Your task to perform on an android device: refresh tabs in the chrome app Image 0: 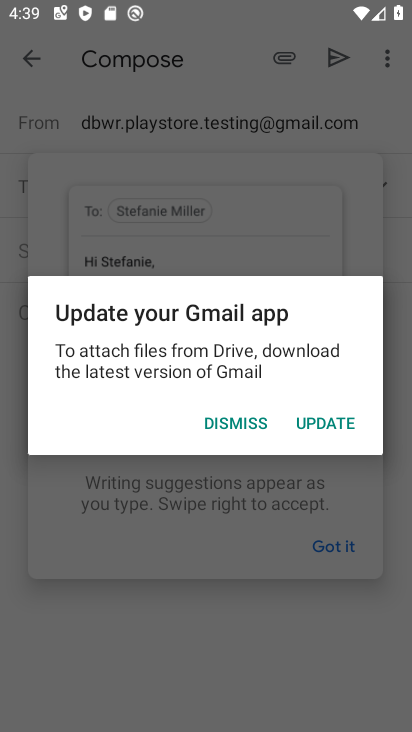
Step 0: press home button
Your task to perform on an android device: refresh tabs in the chrome app Image 1: 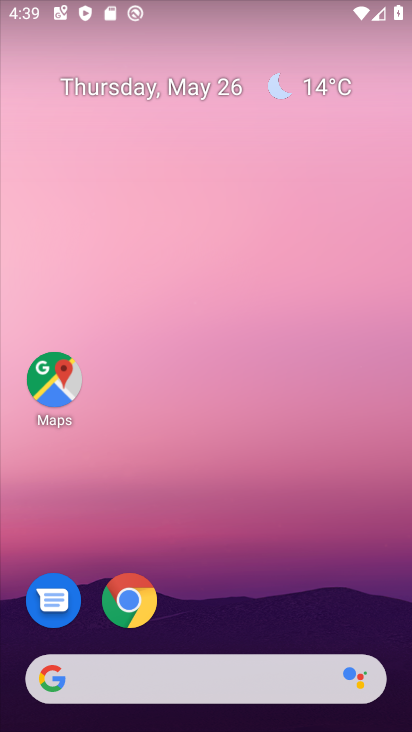
Step 1: click (127, 599)
Your task to perform on an android device: refresh tabs in the chrome app Image 2: 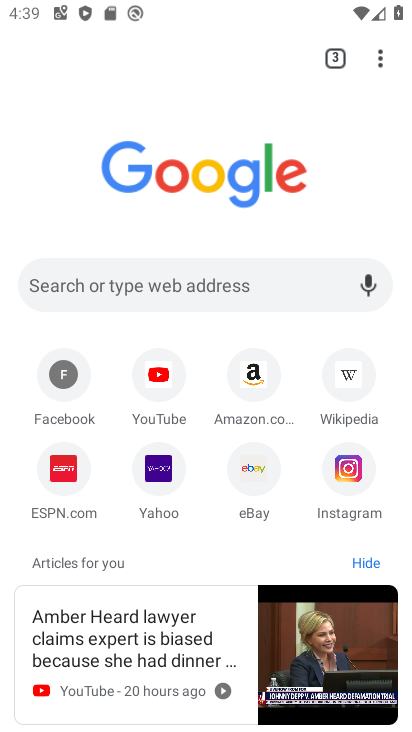
Step 2: click (387, 64)
Your task to perform on an android device: refresh tabs in the chrome app Image 3: 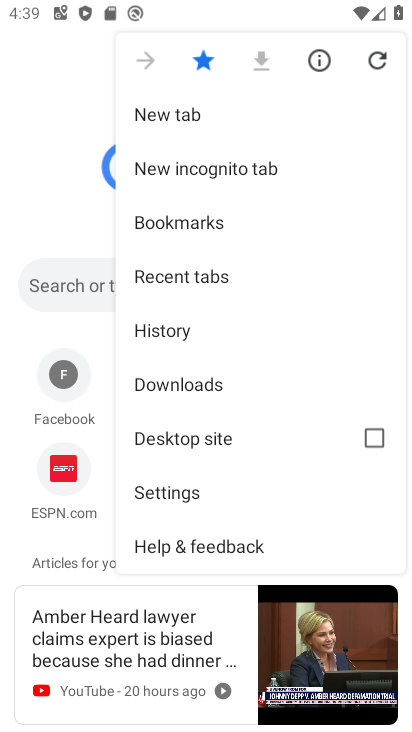
Step 3: click (383, 63)
Your task to perform on an android device: refresh tabs in the chrome app Image 4: 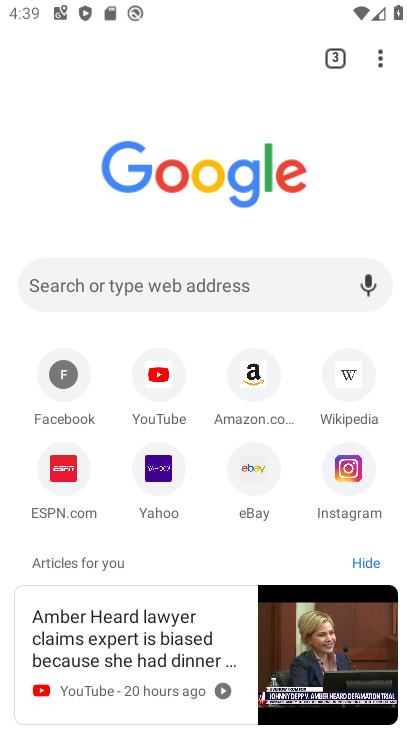
Step 4: task complete